Your task to perform on an android device: Is it going to rain tomorrow? Image 0: 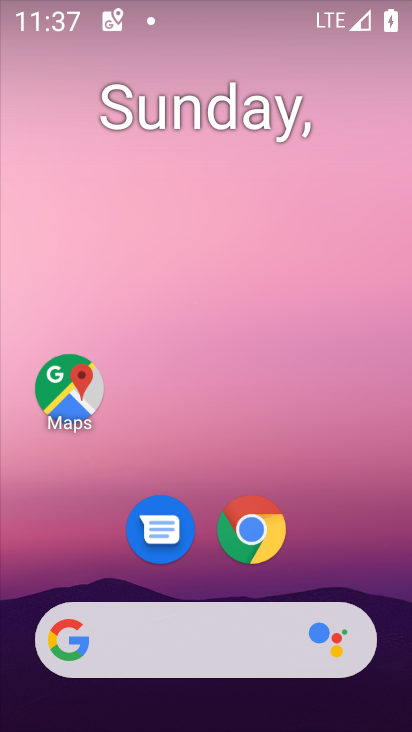
Step 0: drag from (349, 566) to (284, 165)
Your task to perform on an android device: Is it going to rain tomorrow? Image 1: 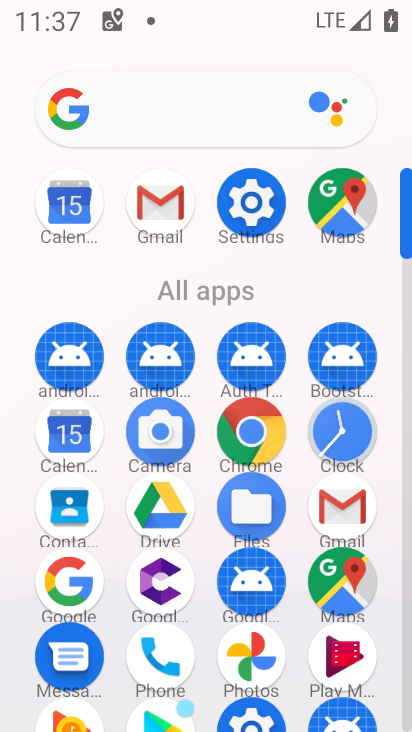
Step 1: drag from (212, 521) to (220, 301)
Your task to perform on an android device: Is it going to rain tomorrow? Image 2: 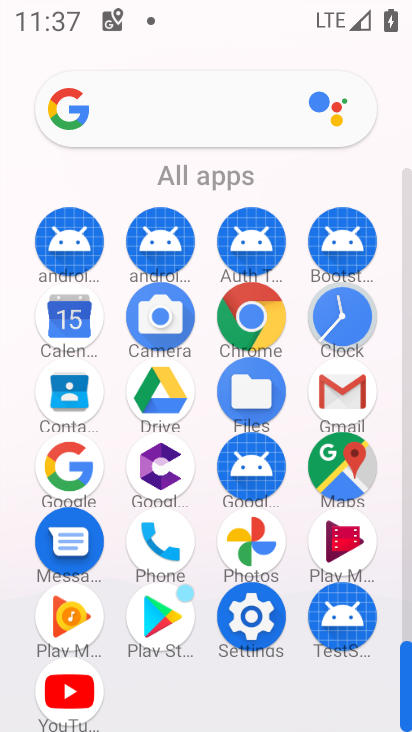
Step 2: click (63, 464)
Your task to perform on an android device: Is it going to rain tomorrow? Image 3: 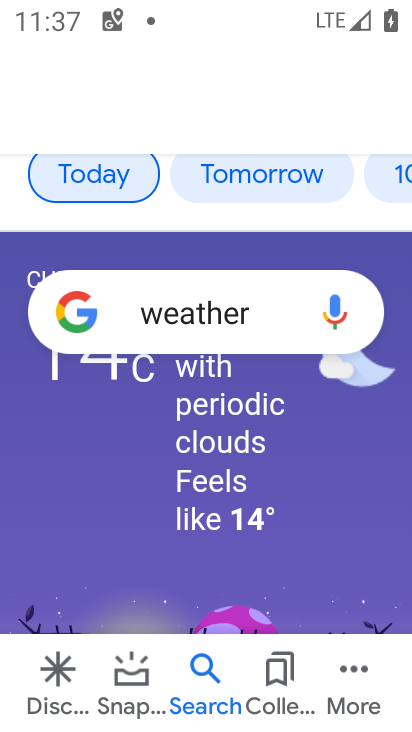
Step 3: drag from (285, 239) to (271, 362)
Your task to perform on an android device: Is it going to rain tomorrow? Image 4: 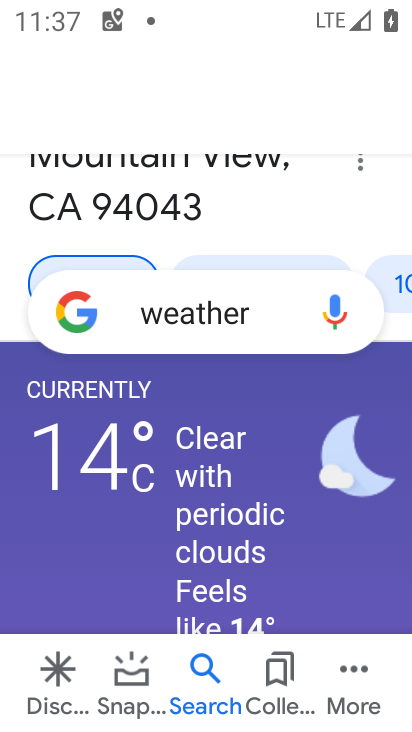
Step 4: click (205, 320)
Your task to perform on an android device: Is it going to rain tomorrow? Image 5: 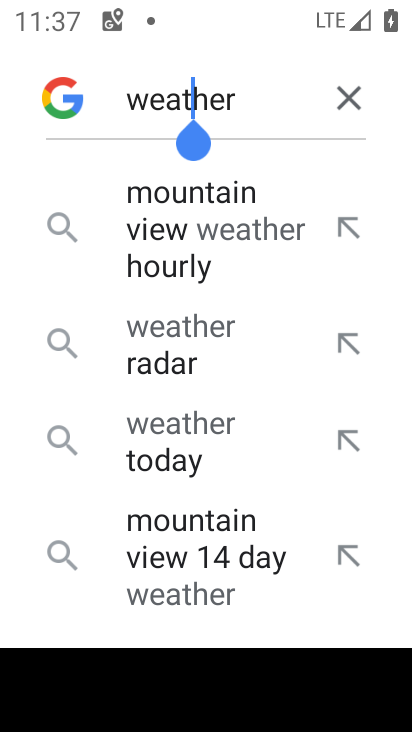
Step 5: click (350, 103)
Your task to perform on an android device: Is it going to rain tomorrow? Image 6: 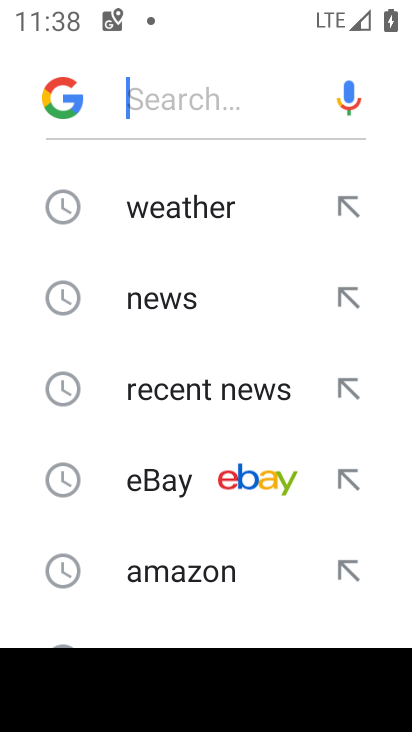
Step 6: type "Is it going to rain tomorrow"
Your task to perform on an android device: Is it going to rain tomorrow? Image 7: 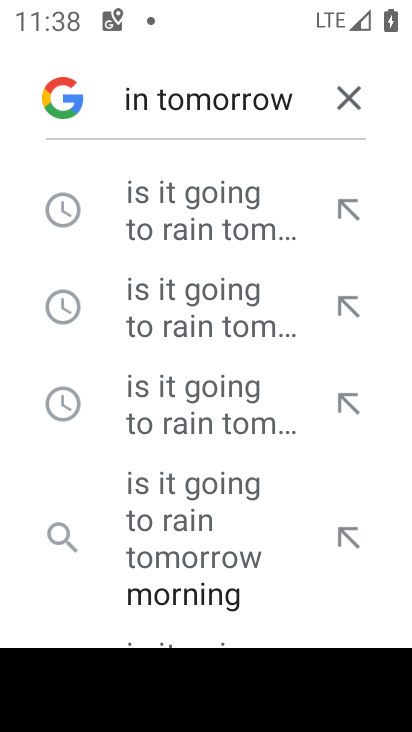
Step 7: click (197, 238)
Your task to perform on an android device: Is it going to rain tomorrow? Image 8: 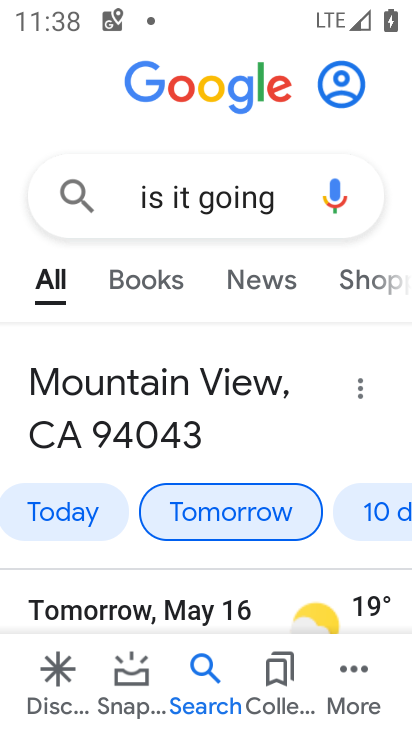
Step 8: task complete